Your task to perform on an android device: Do I have any events today? Image 0: 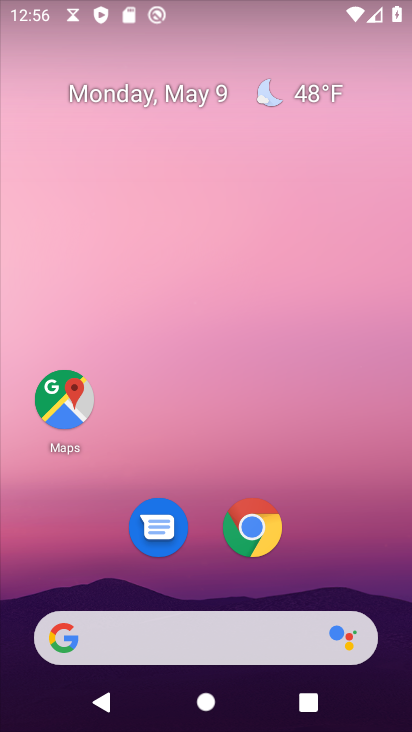
Step 0: drag from (203, 592) to (406, 146)
Your task to perform on an android device: Do I have any events today? Image 1: 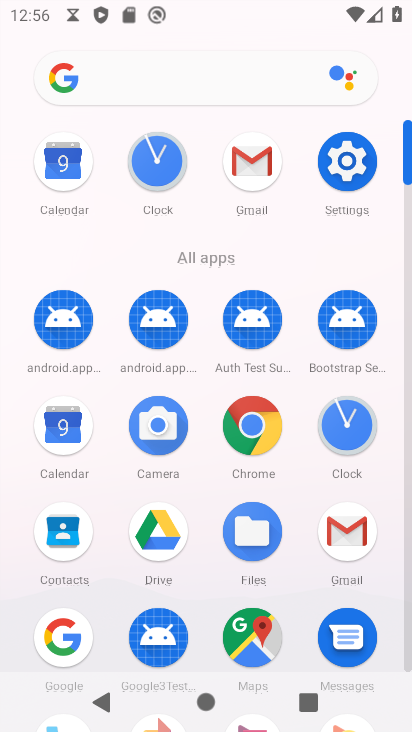
Step 1: click (68, 448)
Your task to perform on an android device: Do I have any events today? Image 2: 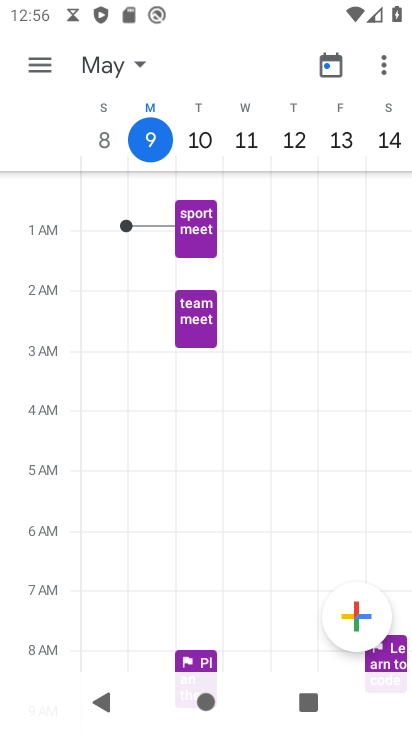
Step 2: click (48, 71)
Your task to perform on an android device: Do I have any events today? Image 3: 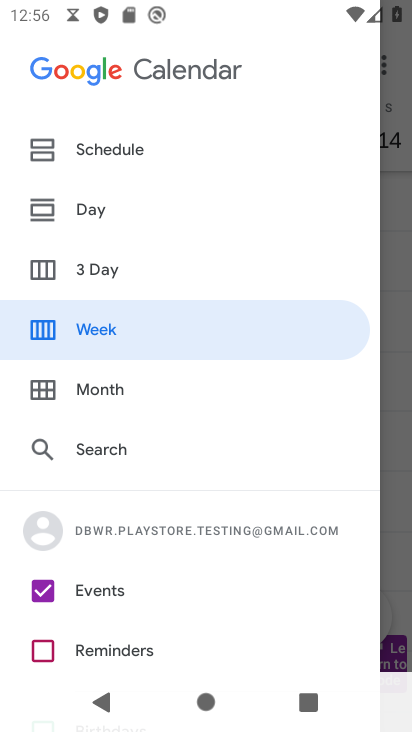
Step 3: click (110, 213)
Your task to perform on an android device: Do I have any events today? Image 4: 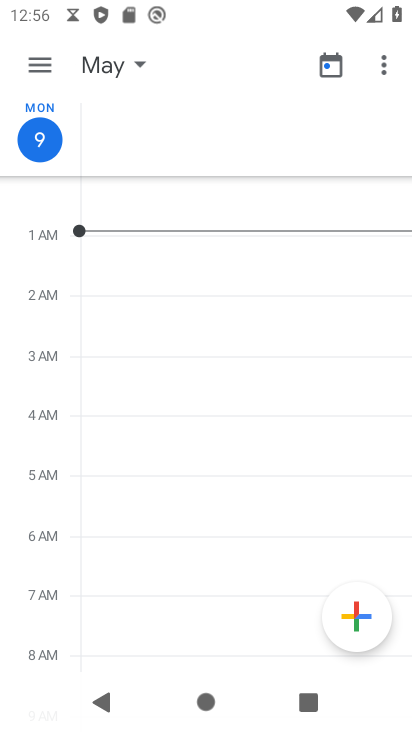
Step 4: click (132, 213)
Your task to perform on an android device: Do I have any events today? Image 5: 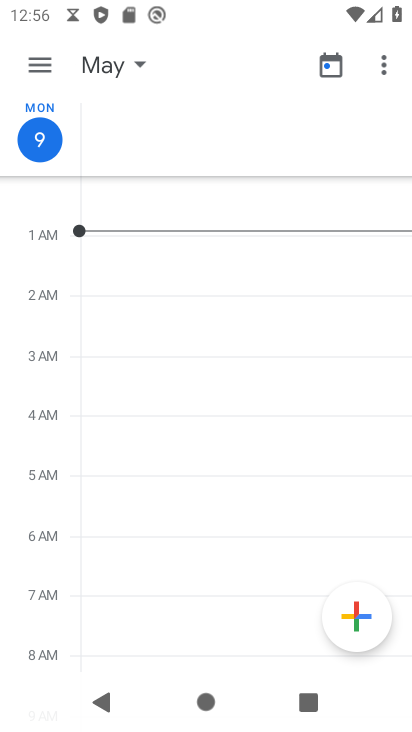
Step 5: task complete